Your task to perform on an android device: open app "YouTube Kids" Image 0: 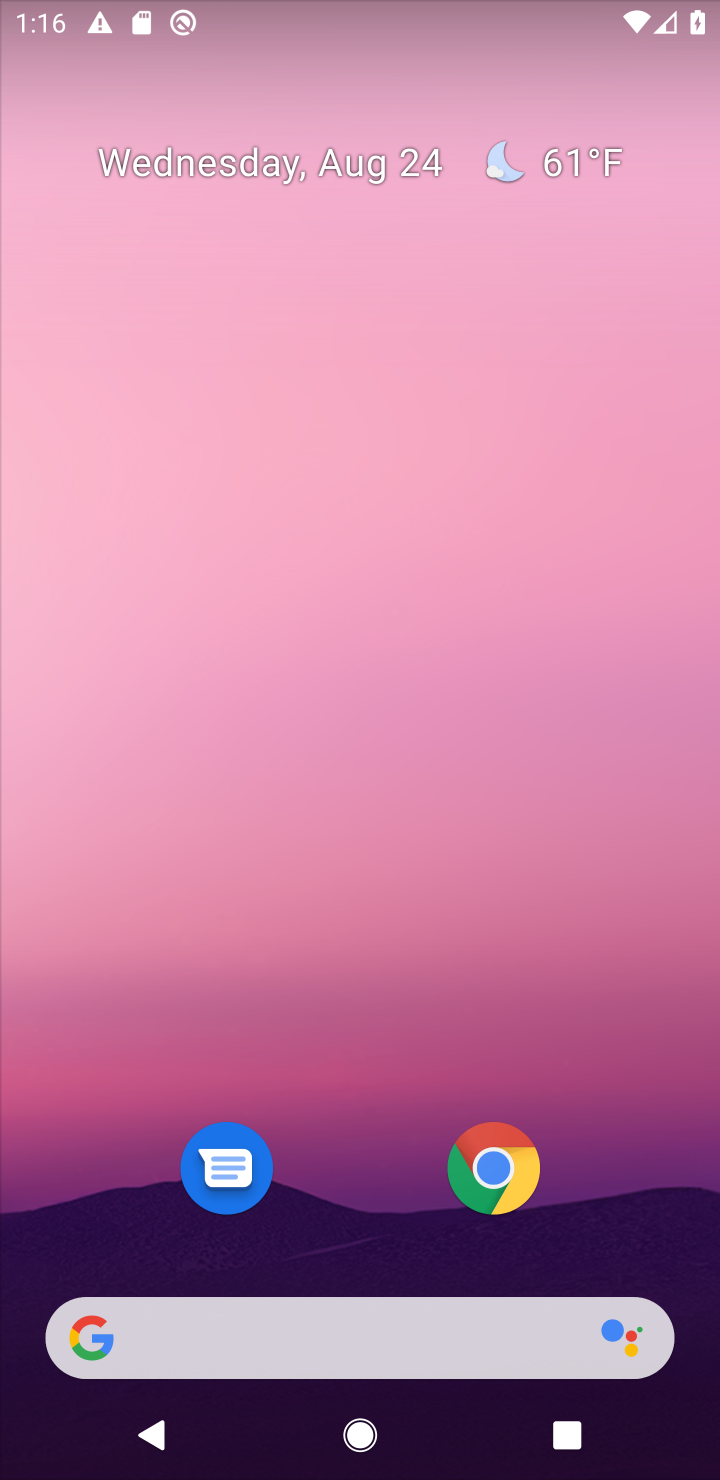
Step 0: drag from (653, 1189) to (527, 373)
Your task to perform on an android device: open app "YouTube Kids" Image 1: 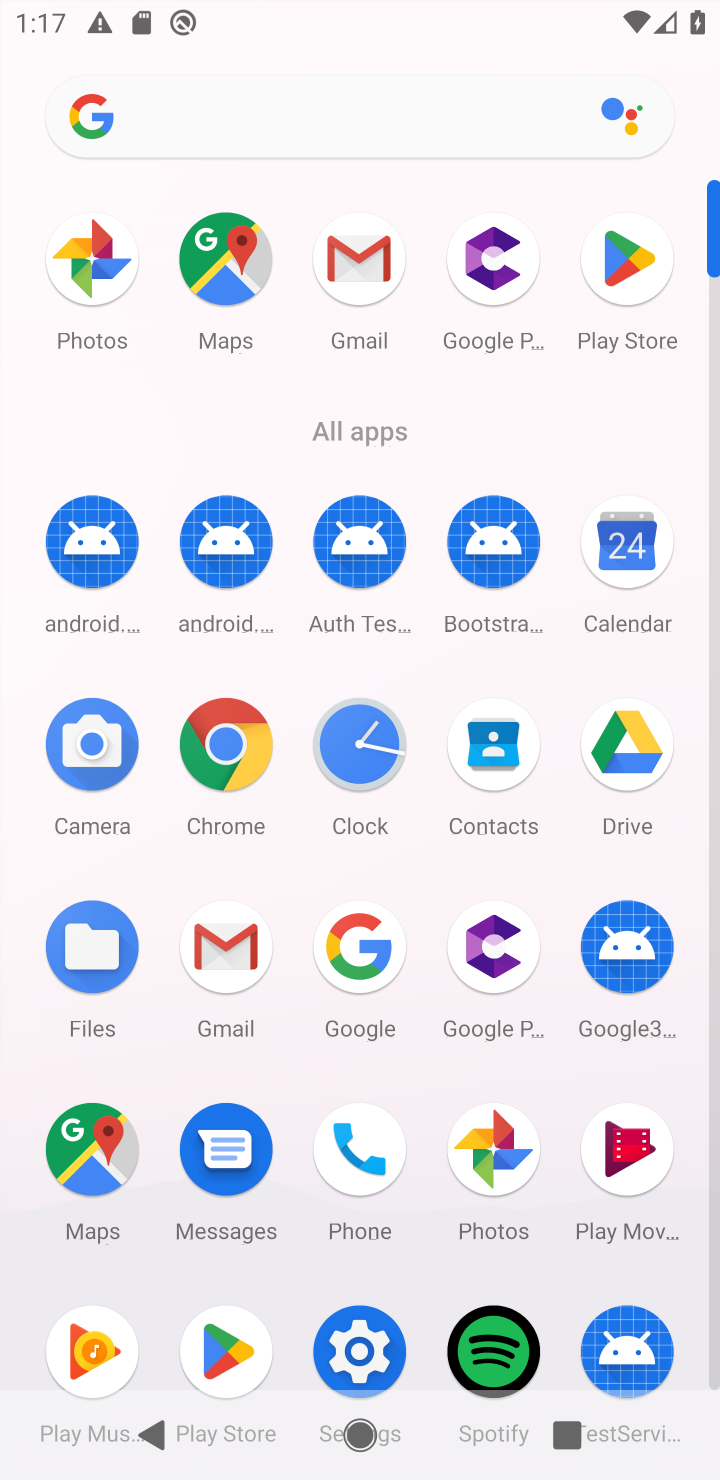
Step 1: click (227, 1356)
Your task to perform on an android device: open app "YouTube Kids" Image 2: 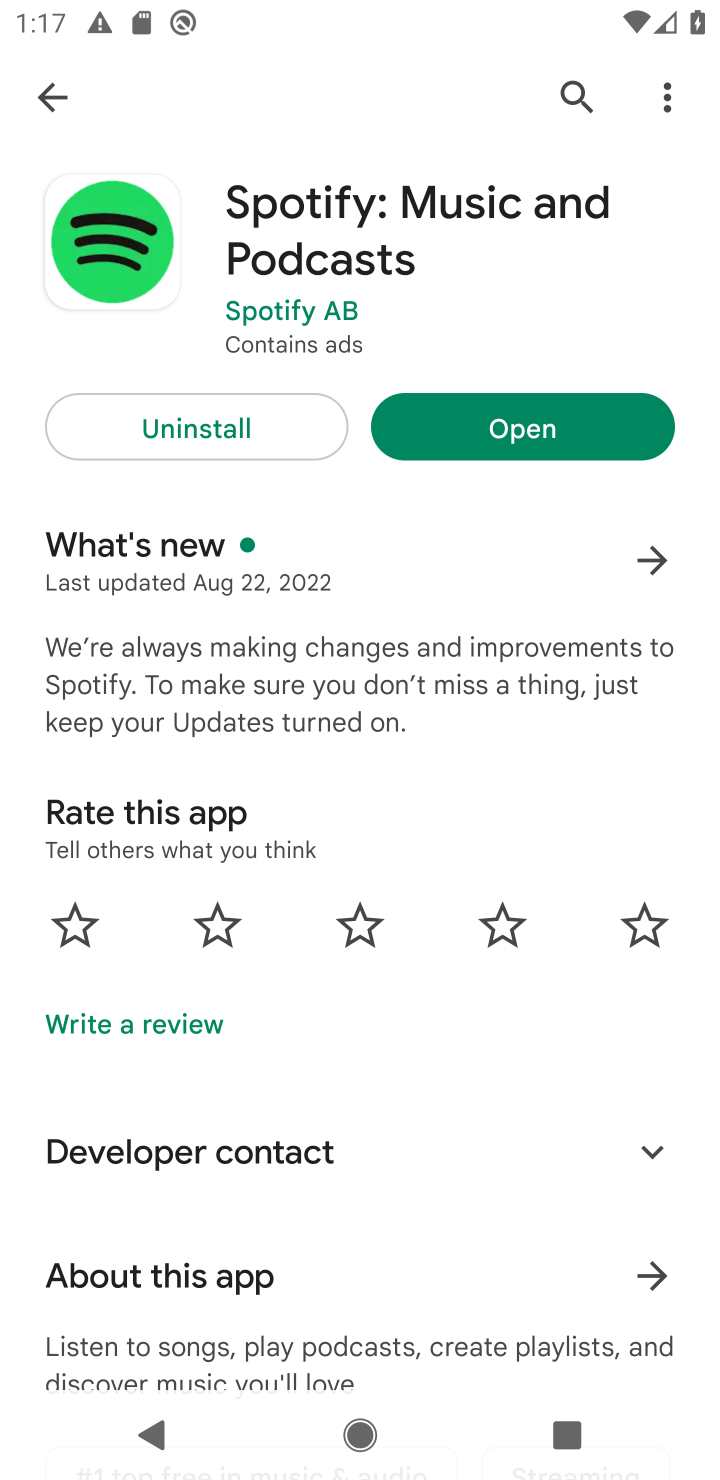
Step 2: click (571, 90)
Your task to perform on an android device: open app "YouTube Kids" Image 3: 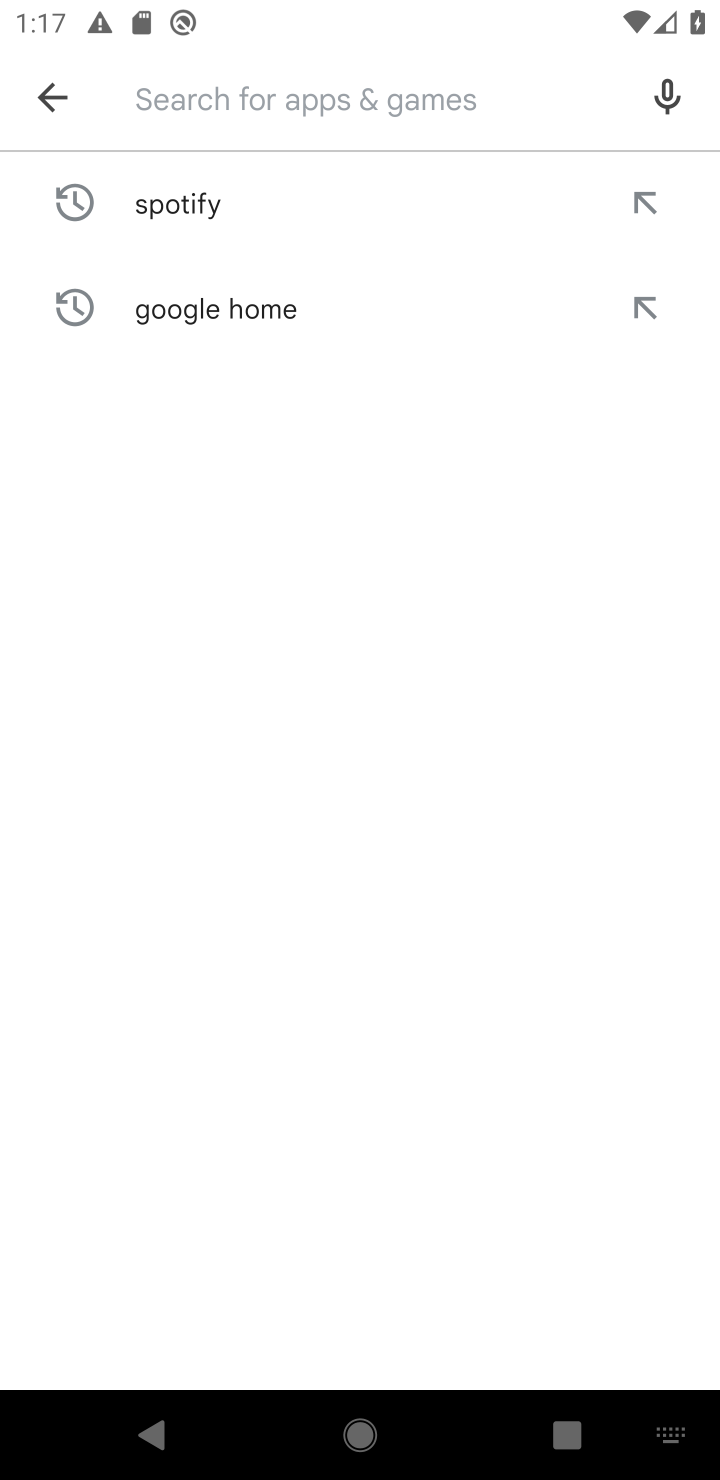
Step 3: type "YouTube Kids"
Your task to perform on an android device: open app "YouTube Kids" Image 4: 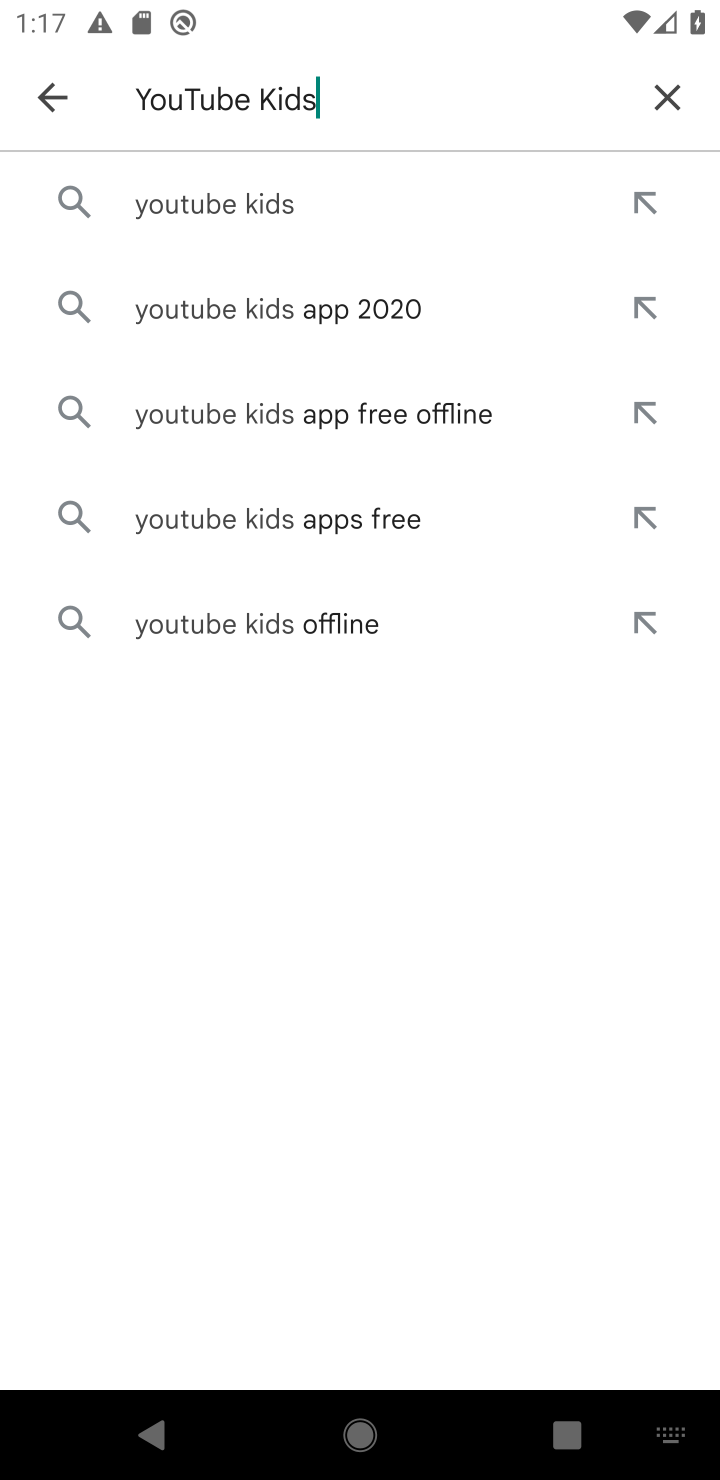
Step 4: click (230, 208)
Your task to perform on an android device: open app "YouTube Kids" Image 5: 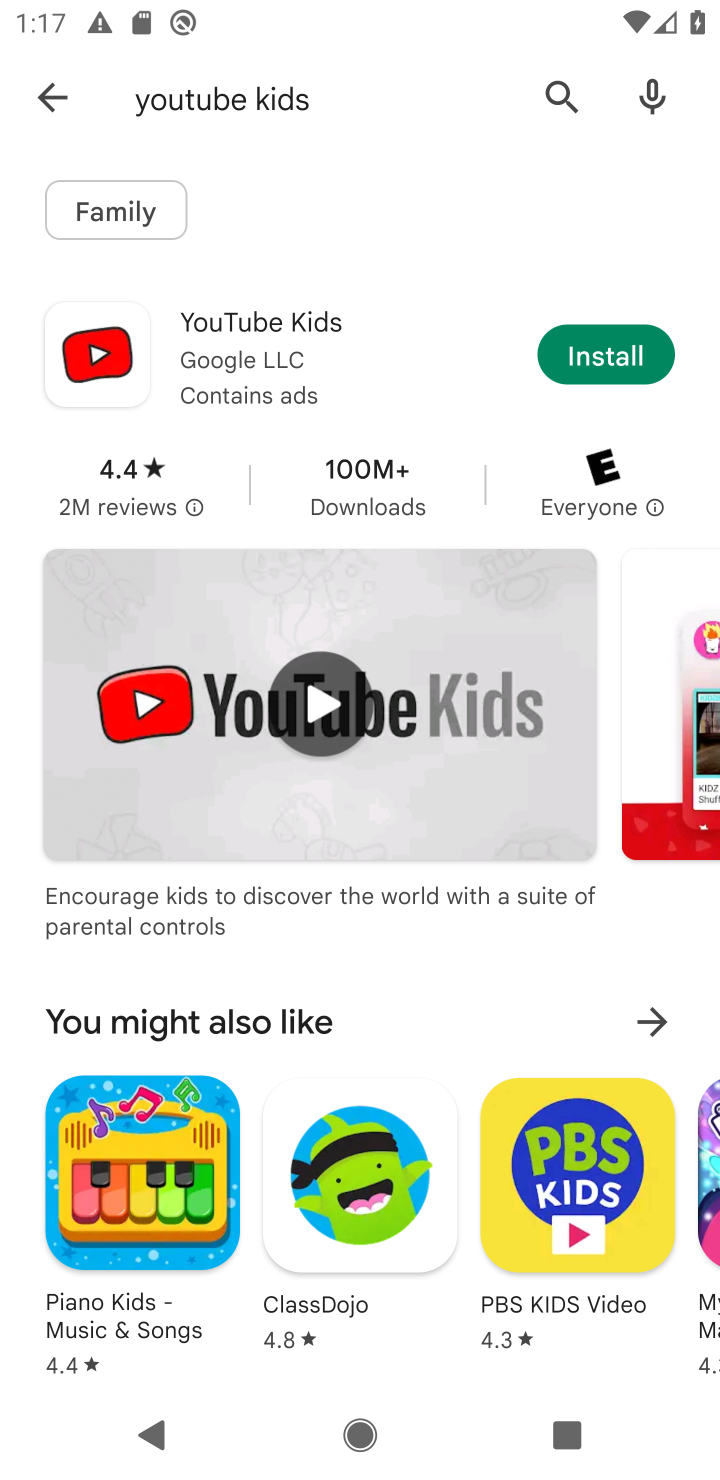
Step 5: task complete